Your task to perform on an android device: open device folders in google photos Image 0: 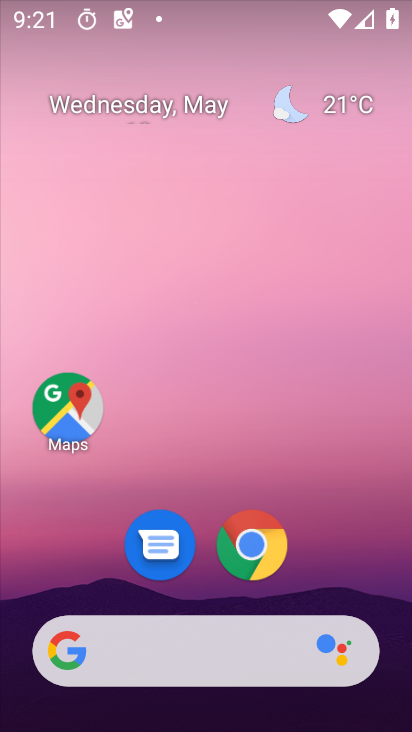
Step 0: drag from (341, 591) to (312, 4)
Your task to perform on an android device: open device folders in google photos Image 1: 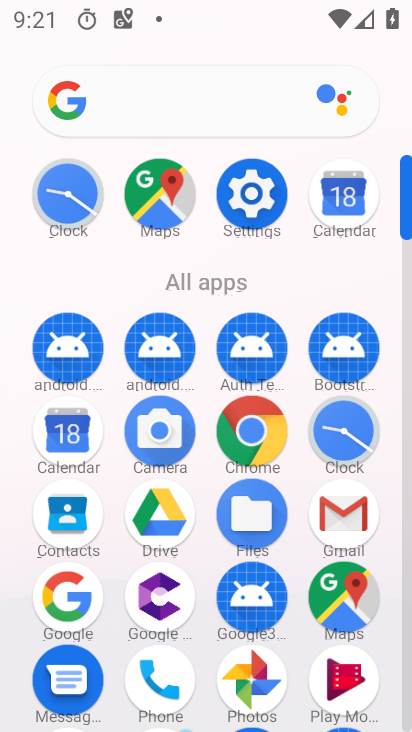
Step 1: drag from (297, 477) to (280, 179)
Your task to perform on an android device: open device folders in google photos Image 2: 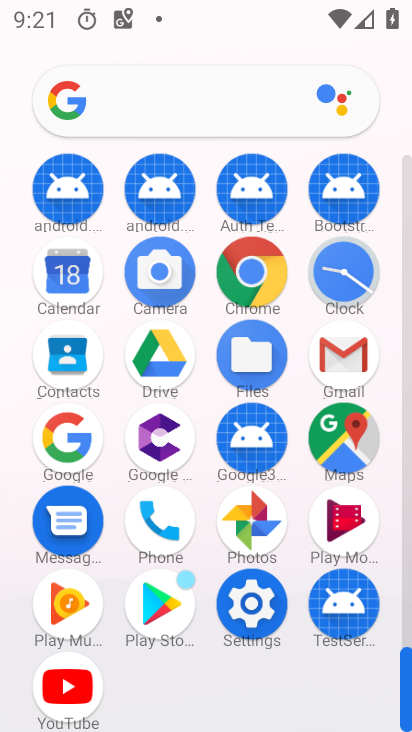
Step 2: click (246, 520)
Your task to perform on an android device: open device folders in google photos Image 3: 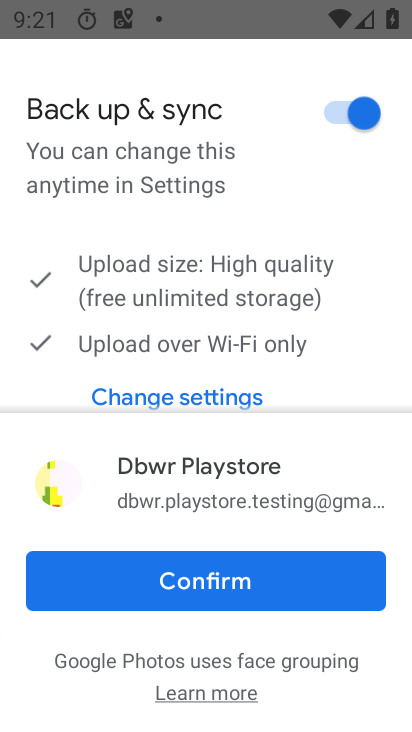
Step 3: click (202, 574)
Your task to perform on an android device: open device folders in google photos Image 4: 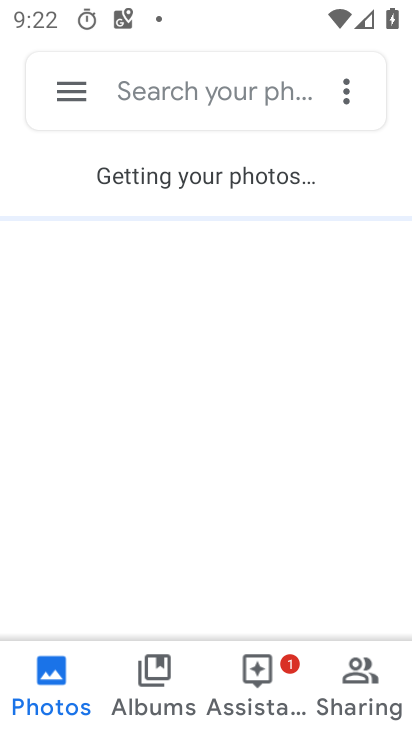
Step 4: click (67, 95)
Your task to perform on an android device: open device folders in google photos Image 5: 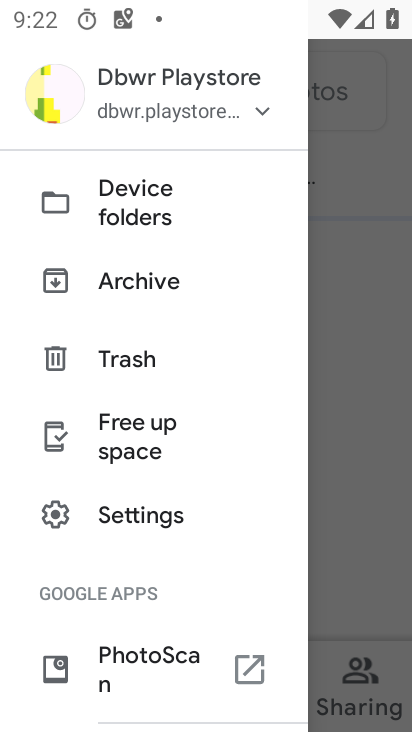
Step 5: click (133, 209)
Your task to perform on an android device: open device folders in google photos Image 6: 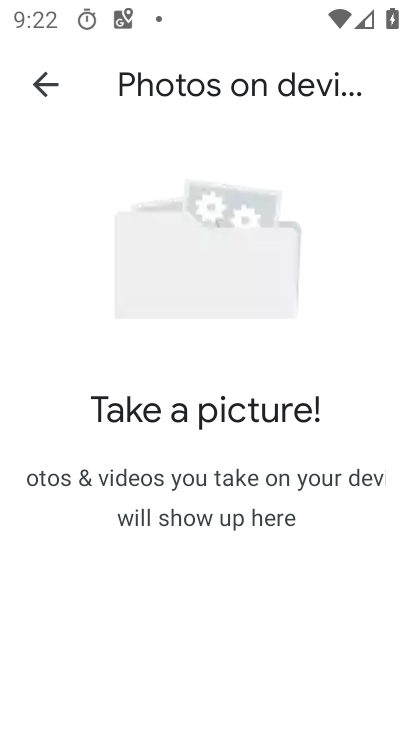
Step 6: task complete